Your task to perform on an android device: Search for acer nitro on bestbuy, select the first entry, add it to the cart, then select checkout. Image 0: 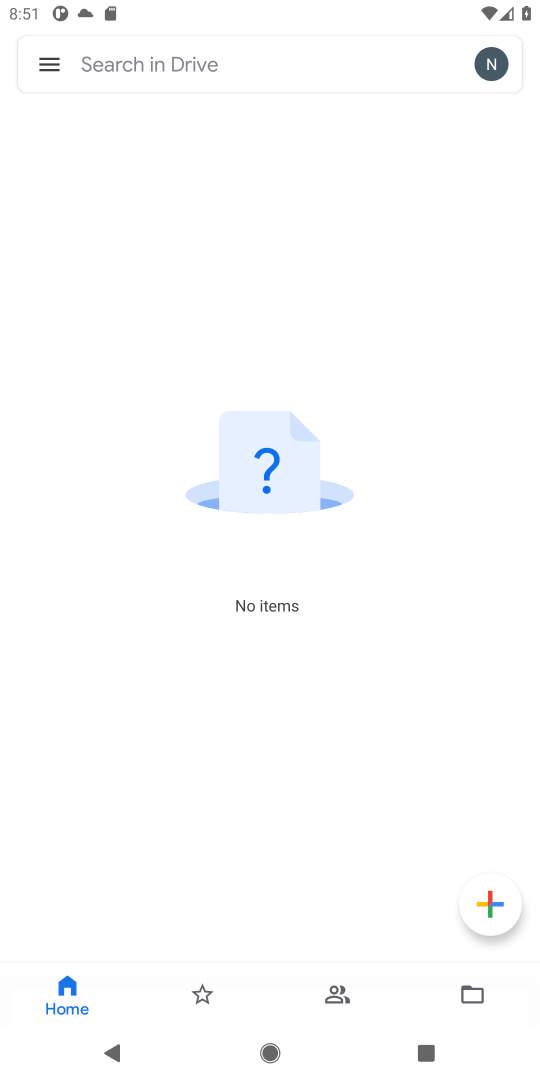
Step 0: press home button
Your task to perform on an android device: Search for acer nitro on bestbuy, select the first entry, add it to the cart, then select checkout. Image 1: 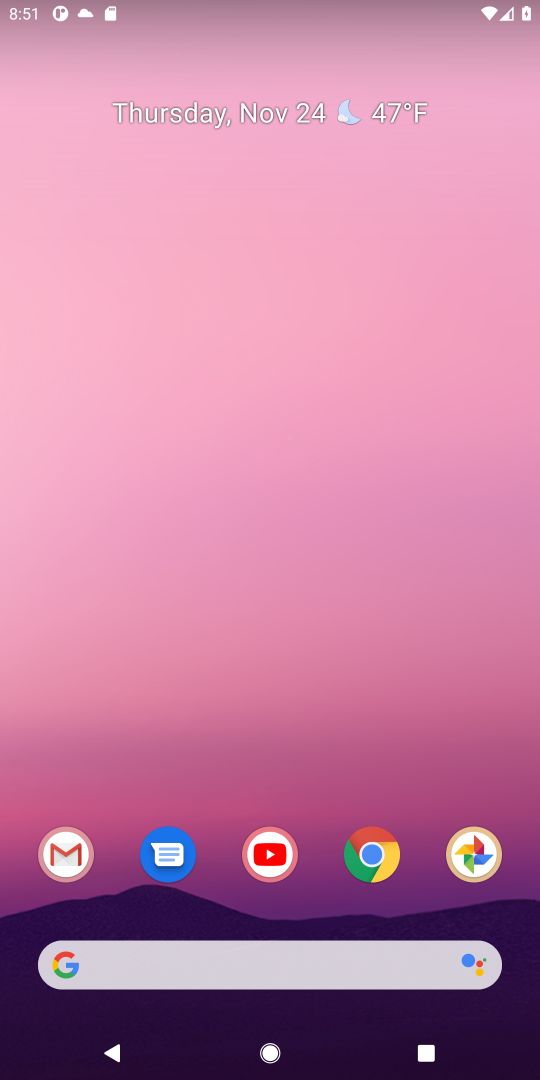
Step 1: click (378, 856)
Your task to perform on an android device: Search for acer nitro on bestbuy, select the first entry, add it to the cart, then select checkout. Image 2: 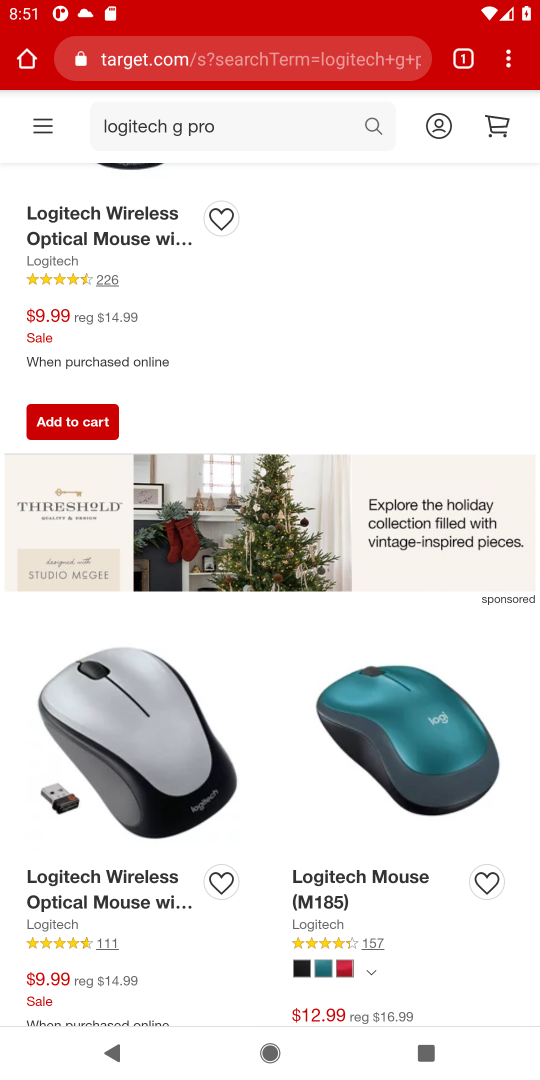
Step 2: click (164, 62)
Your task to perform on an android device: Search for acer nitro on bestbuy, select the first entry, add it to the cart, then select checkout. Image 3: 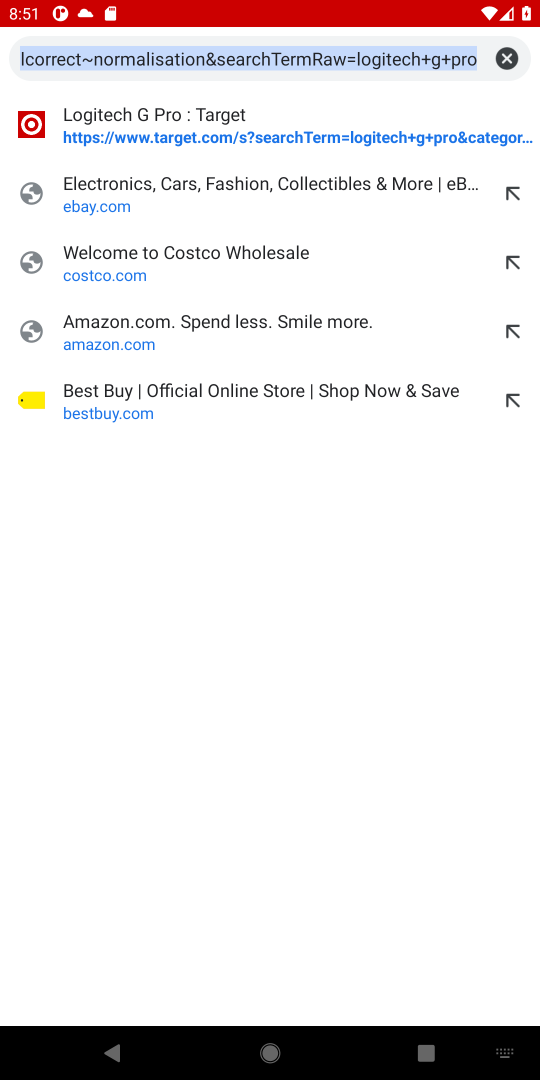
Step 3: click (105, 409)
Your task to perform on an android device: Search for acer nitro on bestbuy, select the first entry, add it to the cart, then select checkout. Image 4: 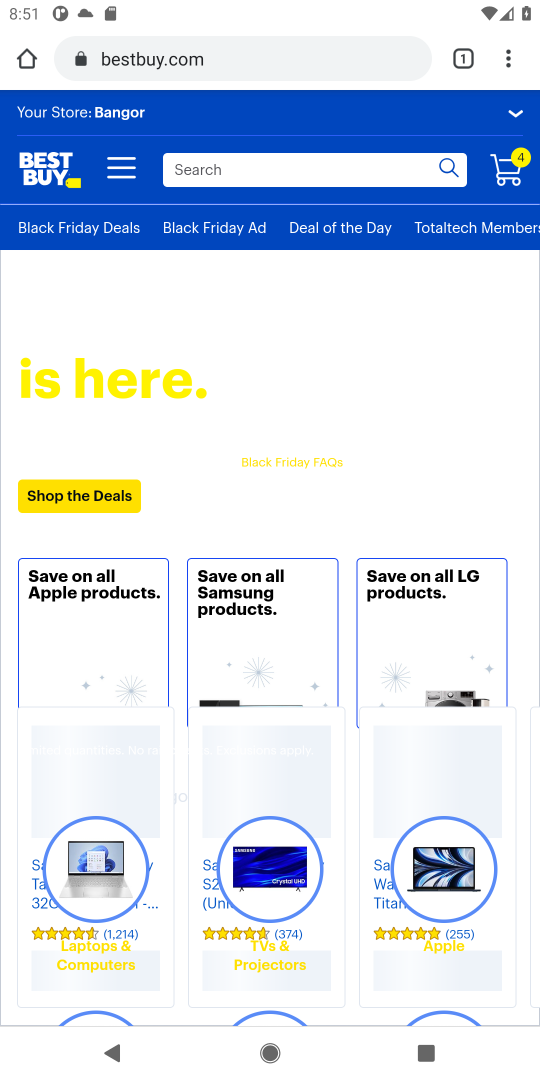
Step 4: click (213, 172)
Your task to perform on an android device: Search for acer nitro on bestbuy, select the first entry, add it to the cart, then select checkout. Image 5: 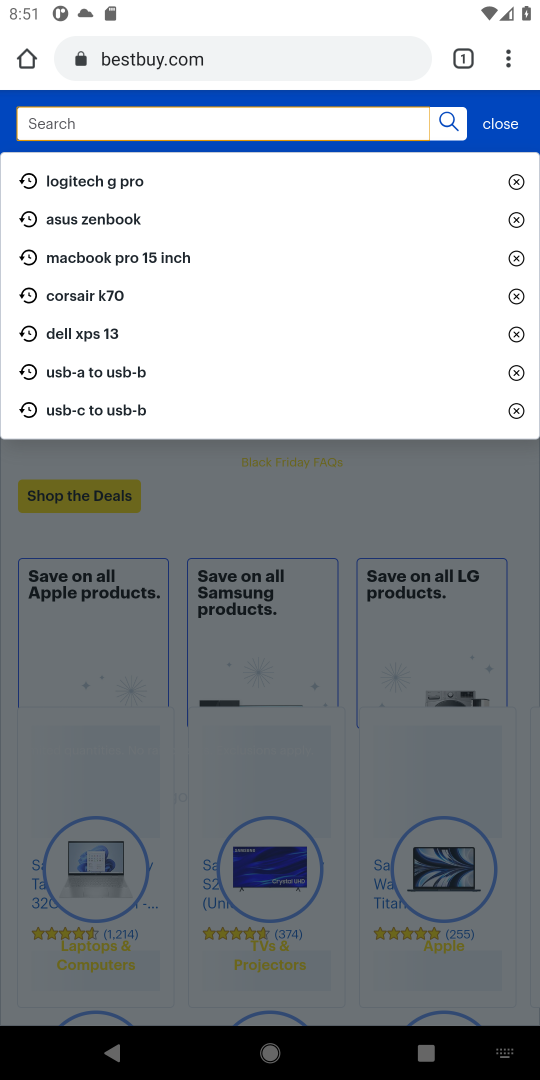
Step 5: type "acer nitro"
Your task to perform on an android device: Search for acer nitro on bestbuy, select the first entry, add it to the cart, then select checkout. Image 6: 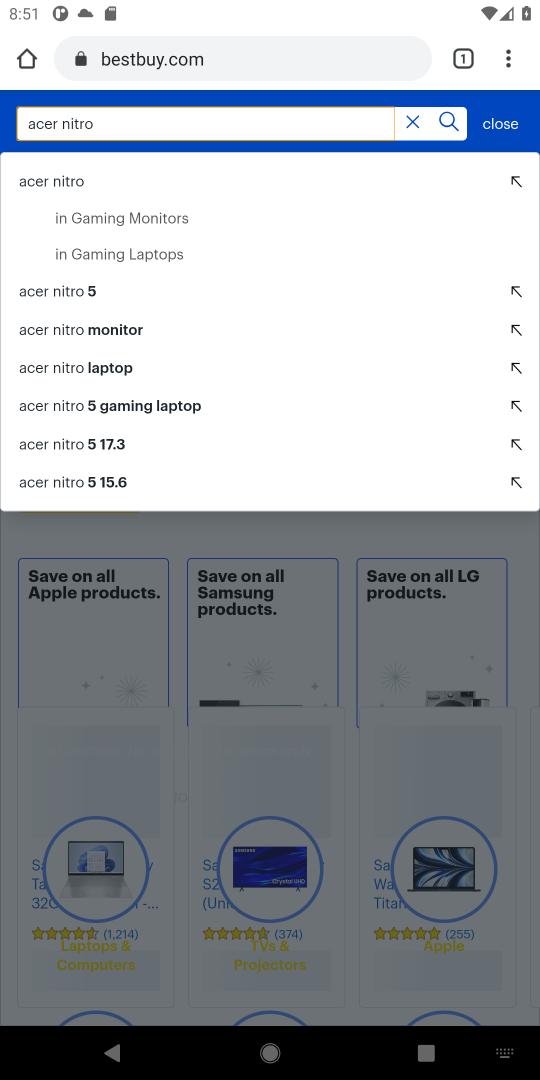
Step 6: click (54, 186)
Your task to perform on an android device: Search for acer nitro on bestbuy, select the first entry, add it to the cart, then select checkout. Image 7: 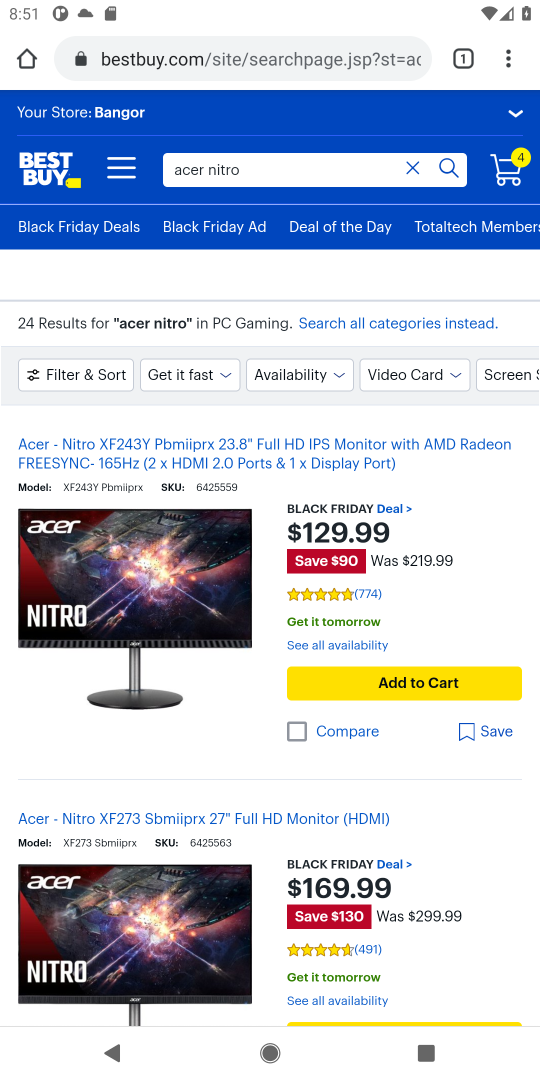
Step 7: click (135, 594)
Your task to perform on an android device: Search for acer nitro on bestbuy, select the first entry, add it to the cart, then select checkout. Image 8: 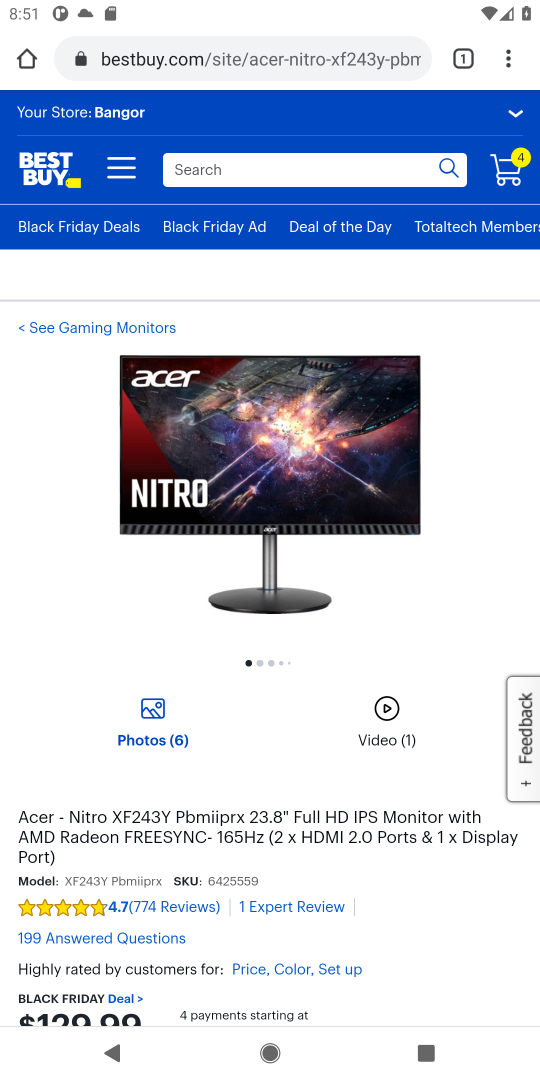
Step 8: drag from (166, 632) to (150, 328)
Your task to perform on an android device: Search for acer nitro on bestbuy, select the first entry, add it to the cart, then select checkout. Image 9: 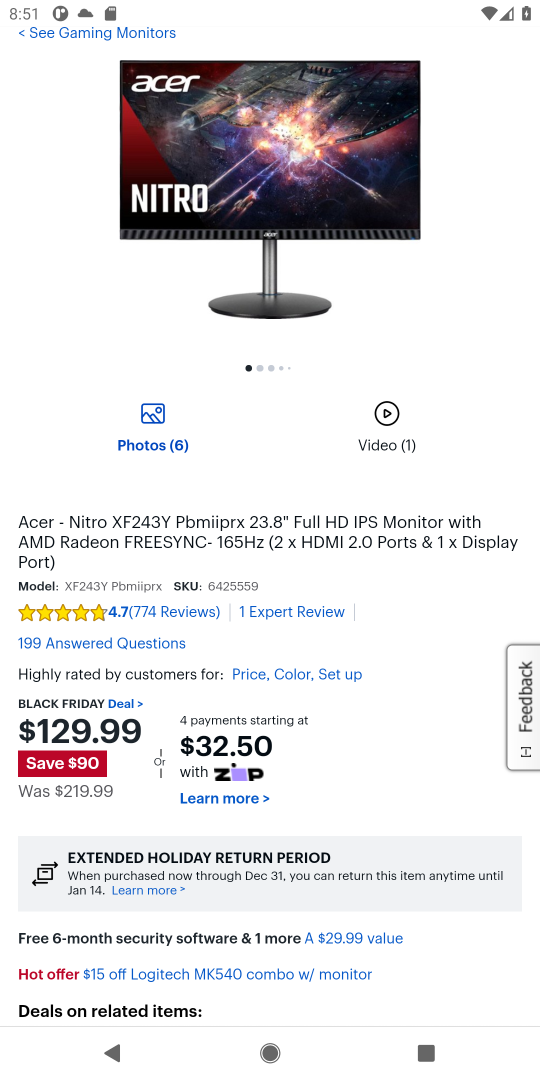
Step 9: drag from (270, 783) to (234, 416)
Your task to perform on an android device: Search for acer nitro on bestbuy, select the first entry, add it to the cart, then select checkout. Image 10: 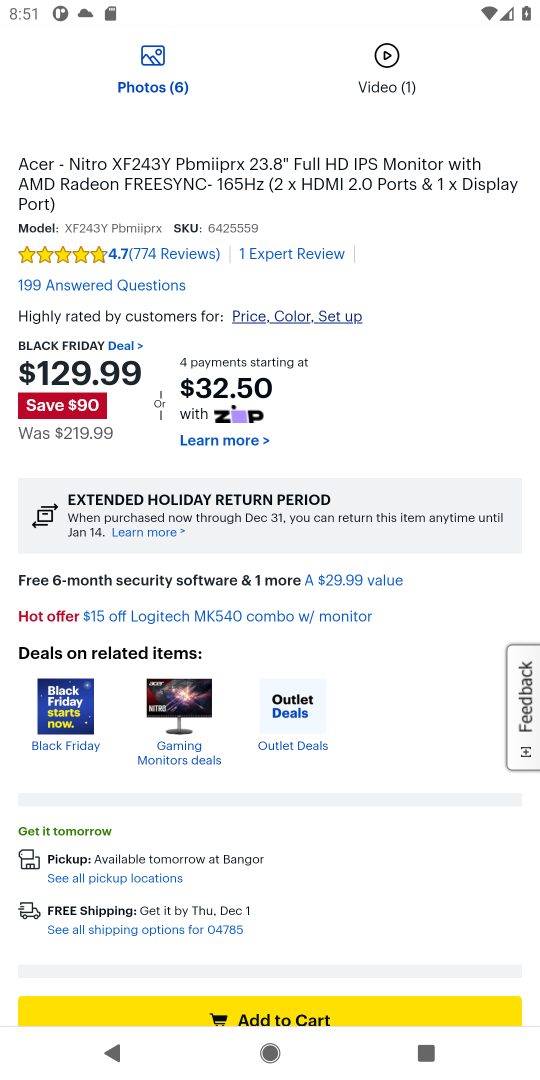
Step 10: drag from (217, 837) to (233, 583)
Your task to perform on an android device: Search for acer nitro on bestbuy, select the first entry, add it to the cart, then select checkout. Image 11: 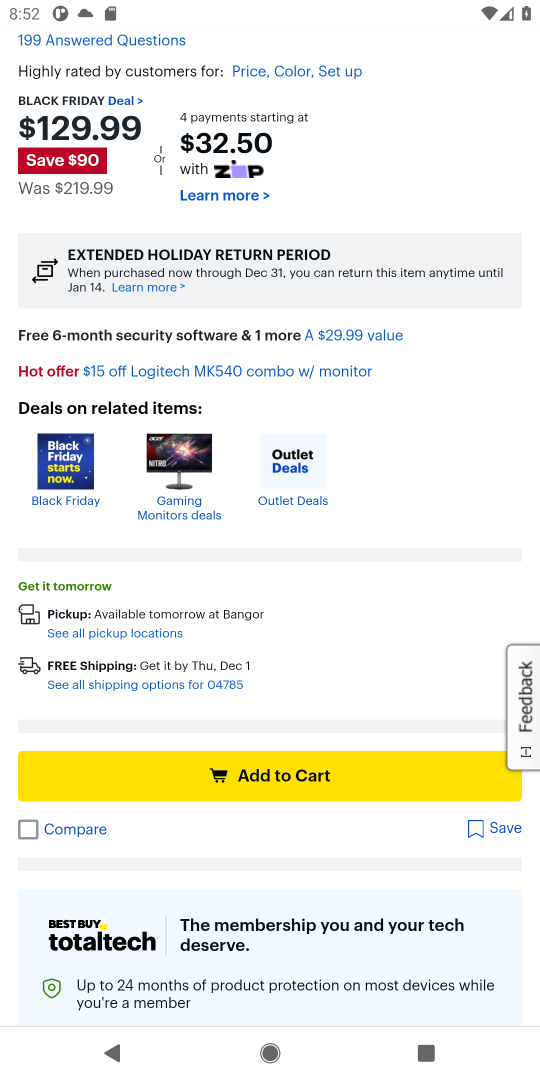
Step 11: click (247, 777)
Your task to perform on an android device: Search for acer nitro on bestbuy, select the first entry, add it to the cart, then select checkout. Image 12: 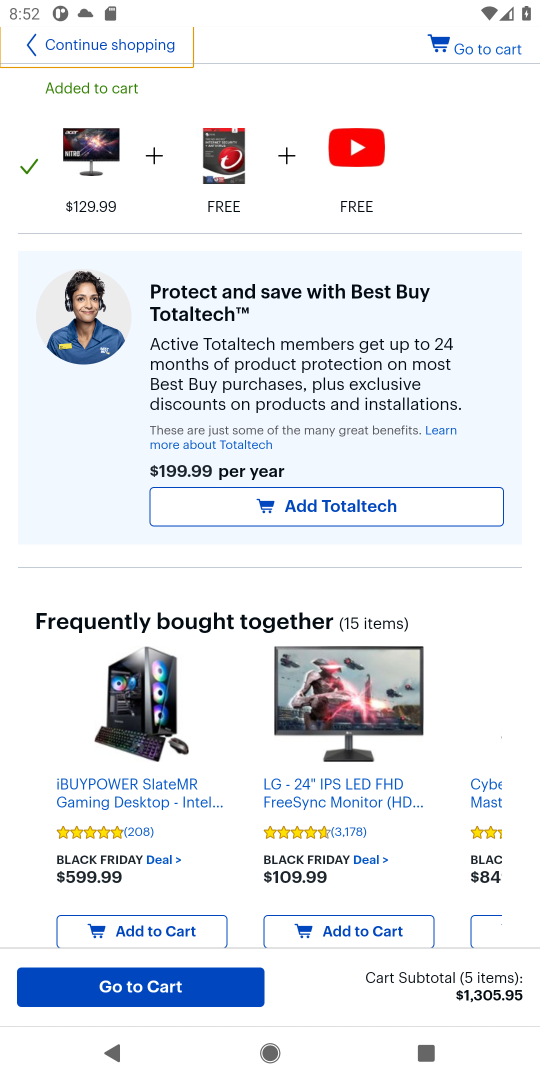
Step 12: click (479, 47)
Your task to perform on an android device: Search for acer nitro on bestbuy, select the first entry, add it to the cart, then select checkout. Image 13: 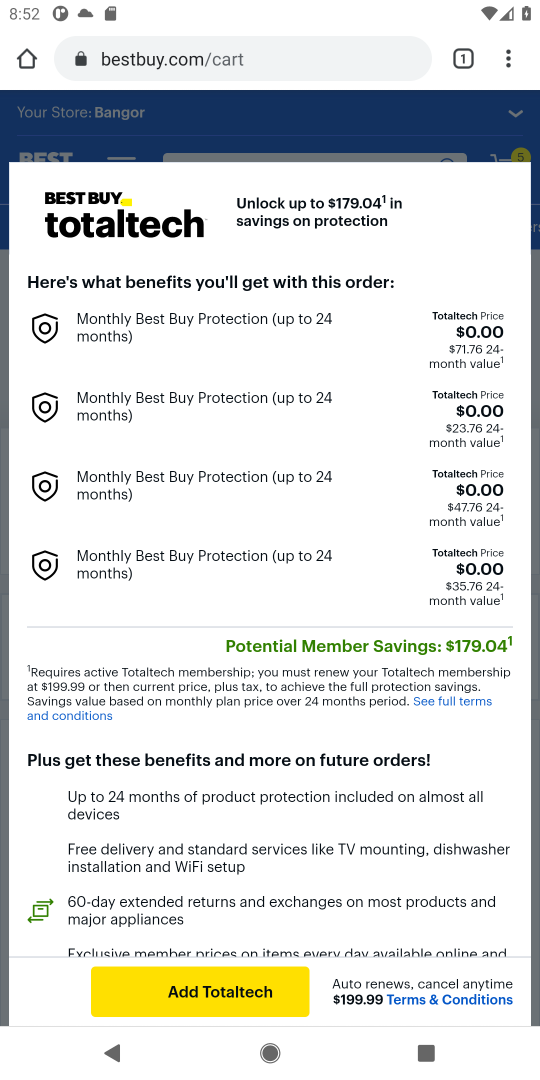
Step 13: click (278, 527)
Your task to perform on an android device: Search for acer nitro on bestbuy, select the first entry, add it to the cart, then select checkout. Image 14: 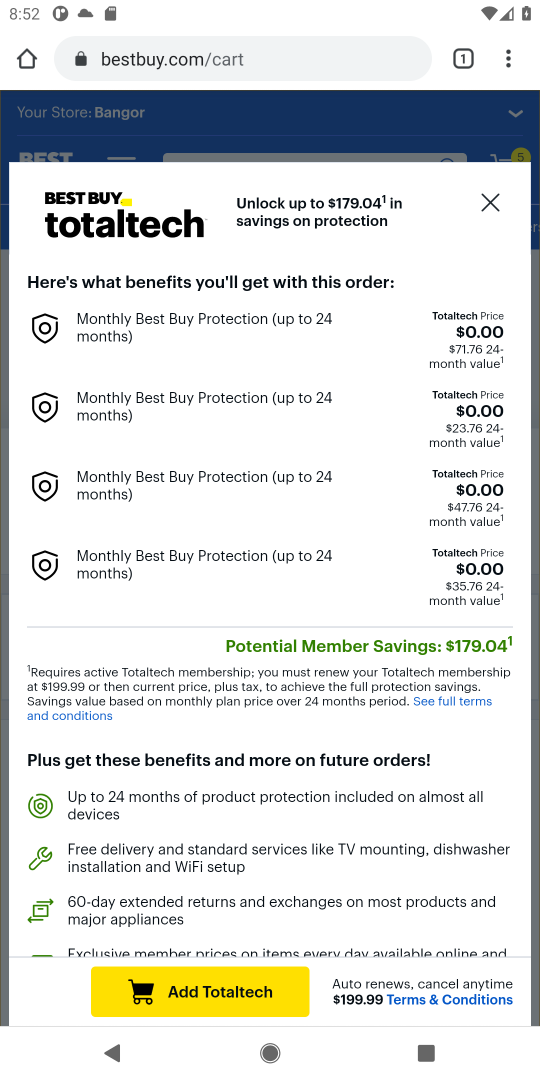
Step 14: click (493, 210)
Your task to perform on an android device: Search for acer nitro on bestbuy, select the first entry, add it to the cart, then select checkout. Image 15: 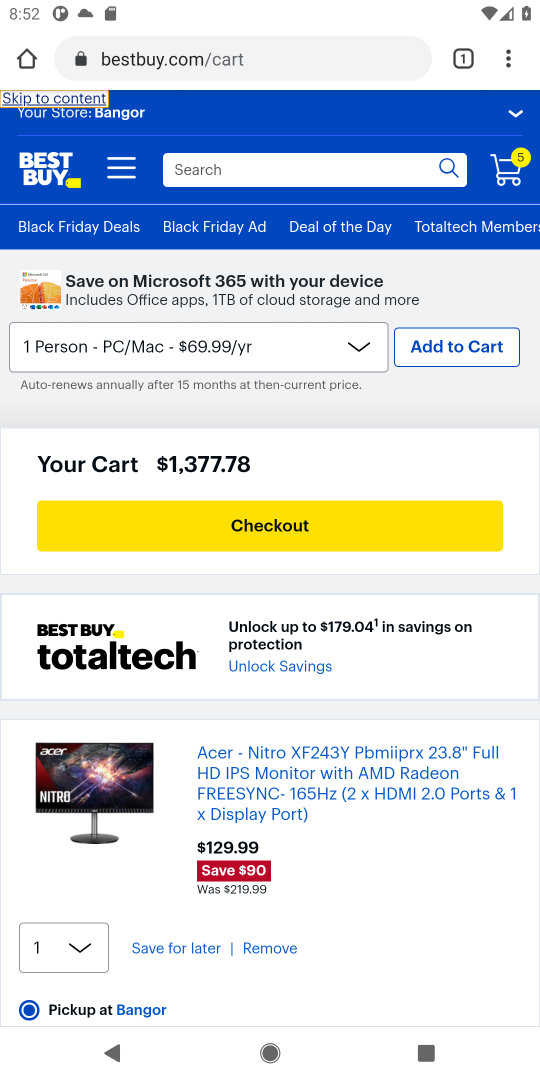
Step 15: click (271, 525)
Your task to perform on an android device: Search for acer nitro on bestbuy, select the first entry, add it to the cart, then select checkout. Image 16: 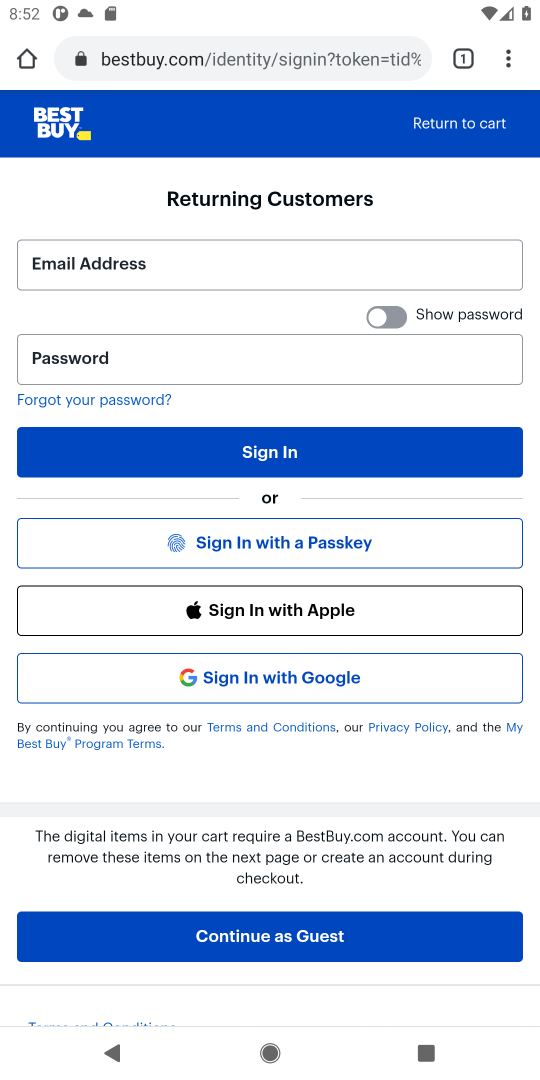
Step 16: task complete